Your task to perform on an android device: Show me recent news Image 0: 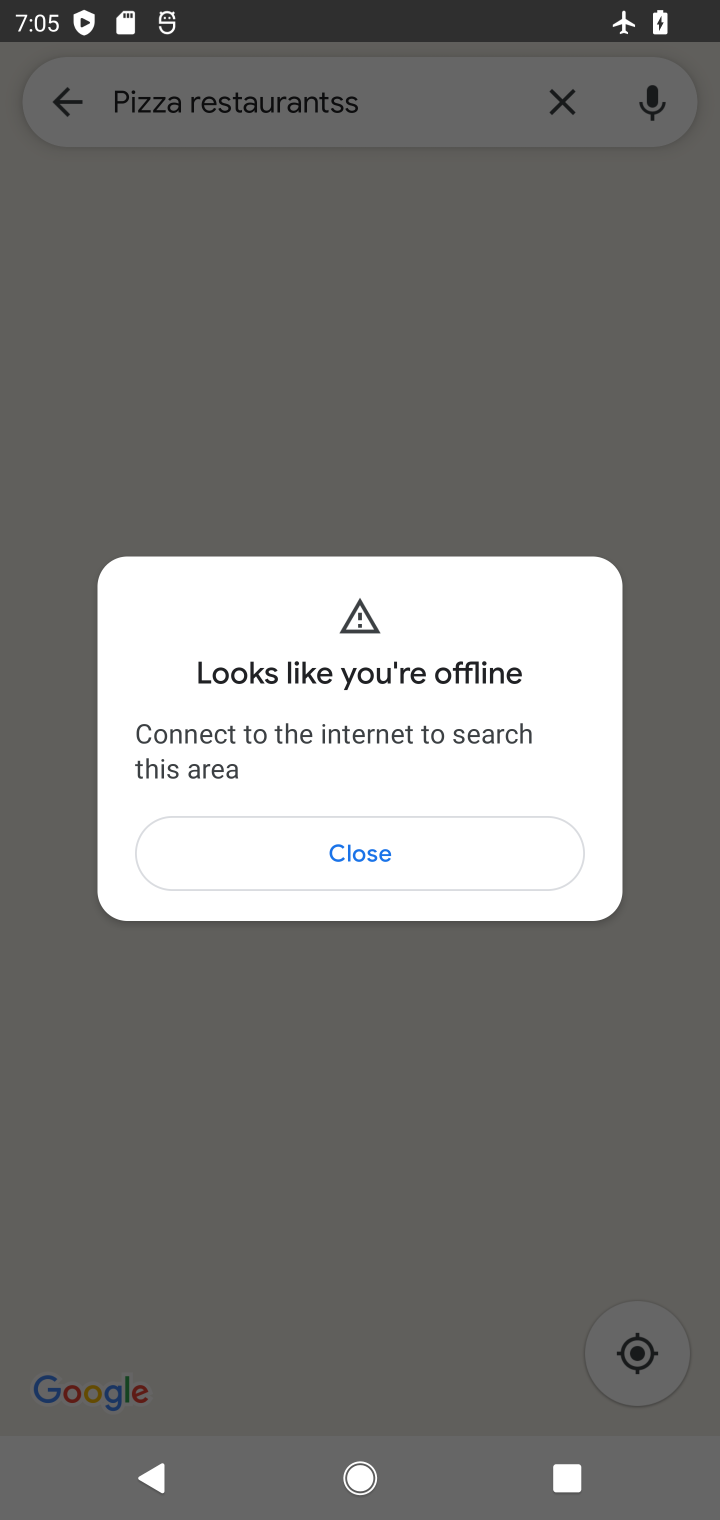
Step 0: press home button
Your task to perform on an android device: Show me recent news Image 1: 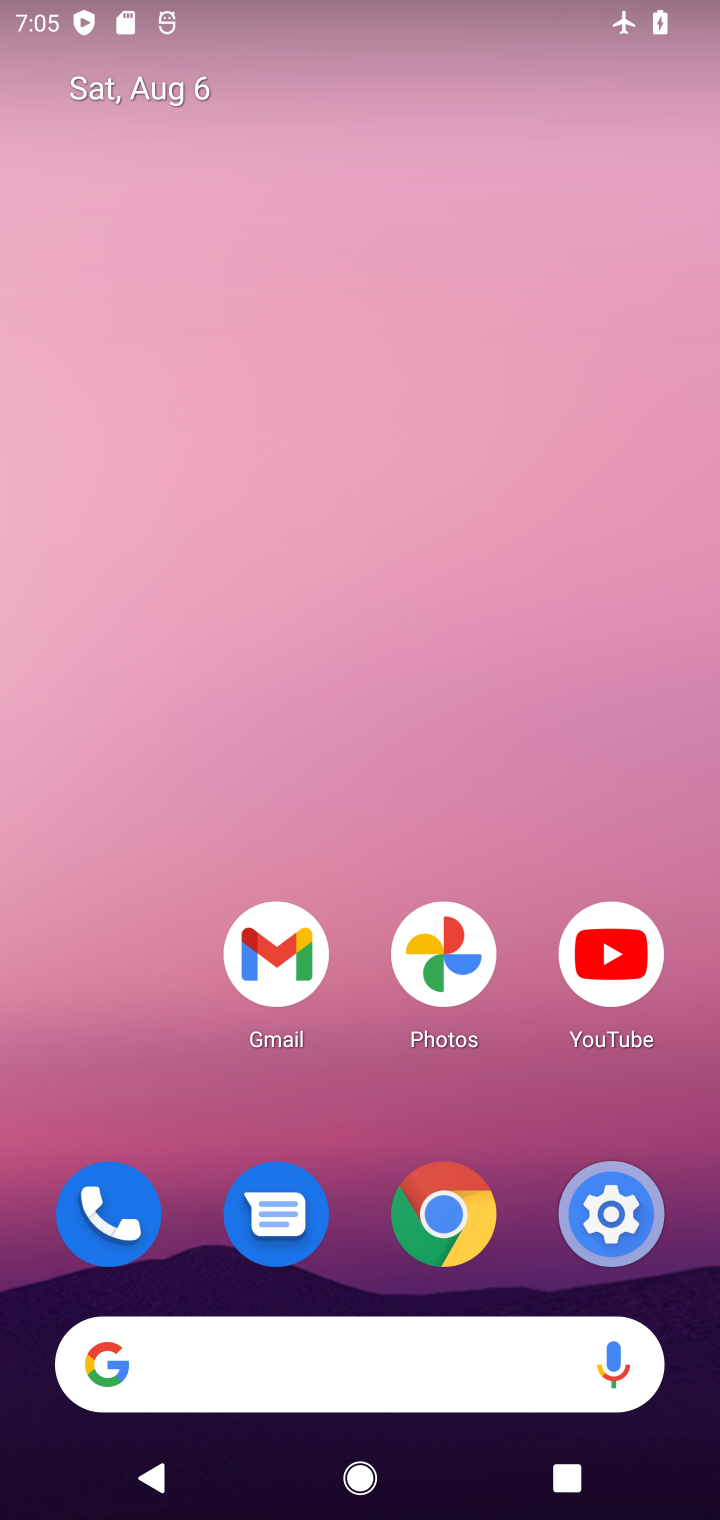
Step 1: click (267, 1376)
Your task to perform on an android device: Show me recent news Image 2: 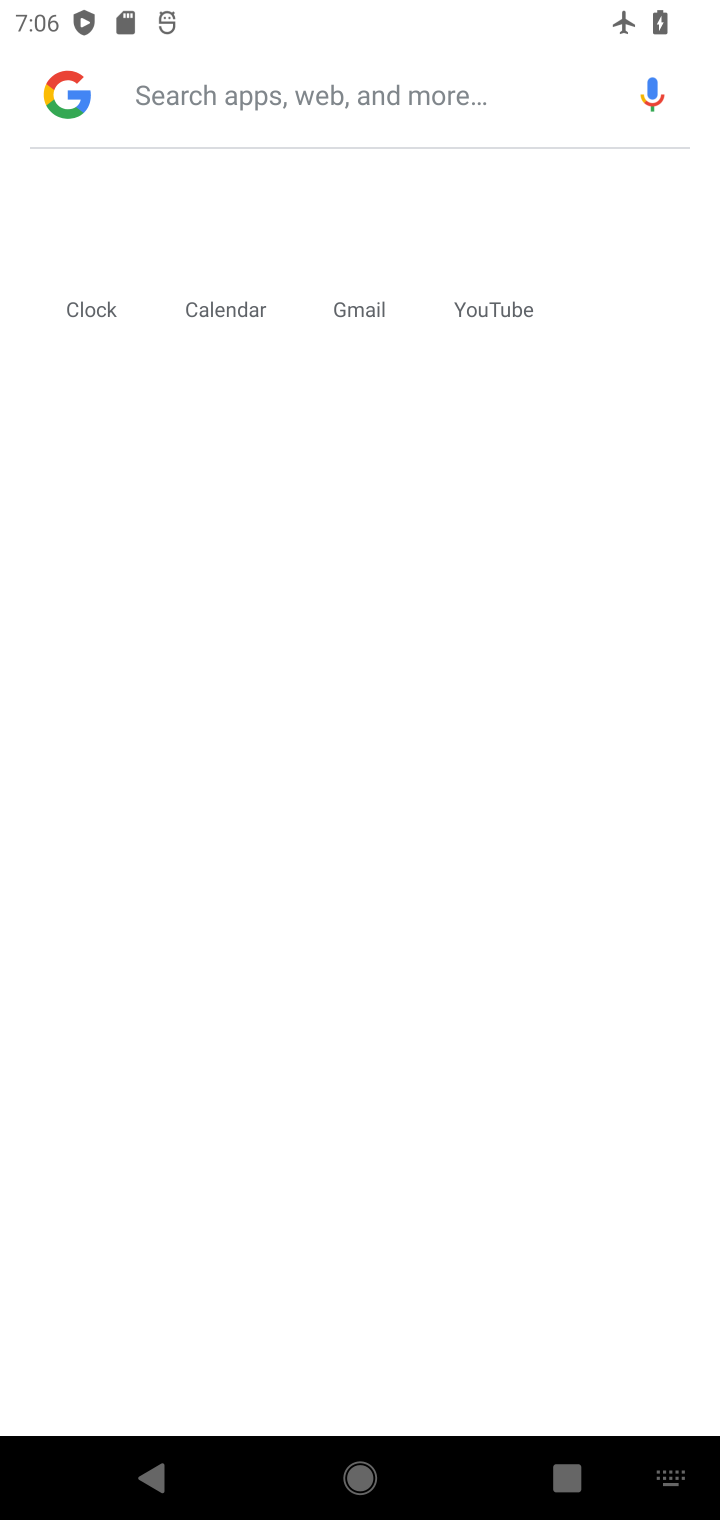
Step 2: type "recent news"
Your task to perform on an android device: Show me recent news Image 3: 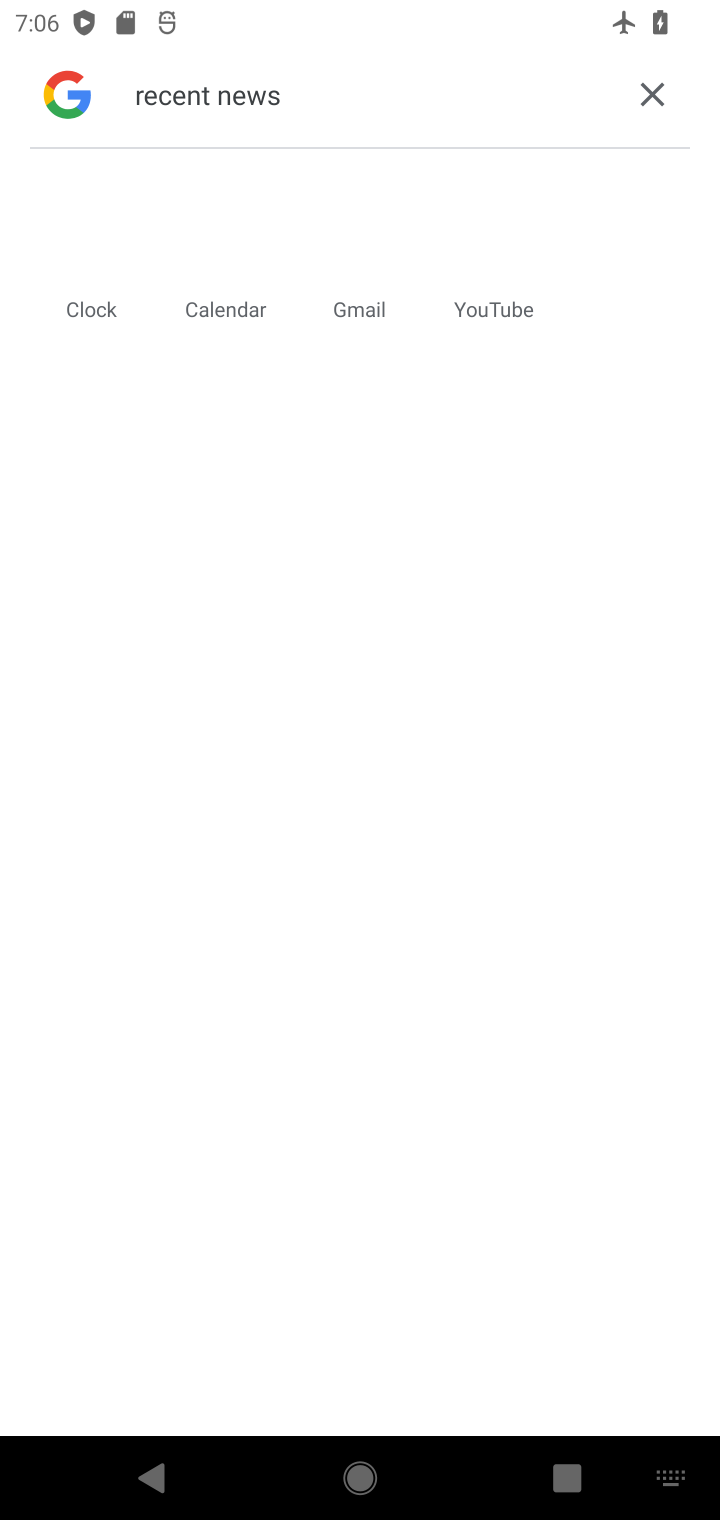
Step 3: drag from (269, 789) to (299, 521)
Your task to perform on an android device: Show me recent news Image 4: 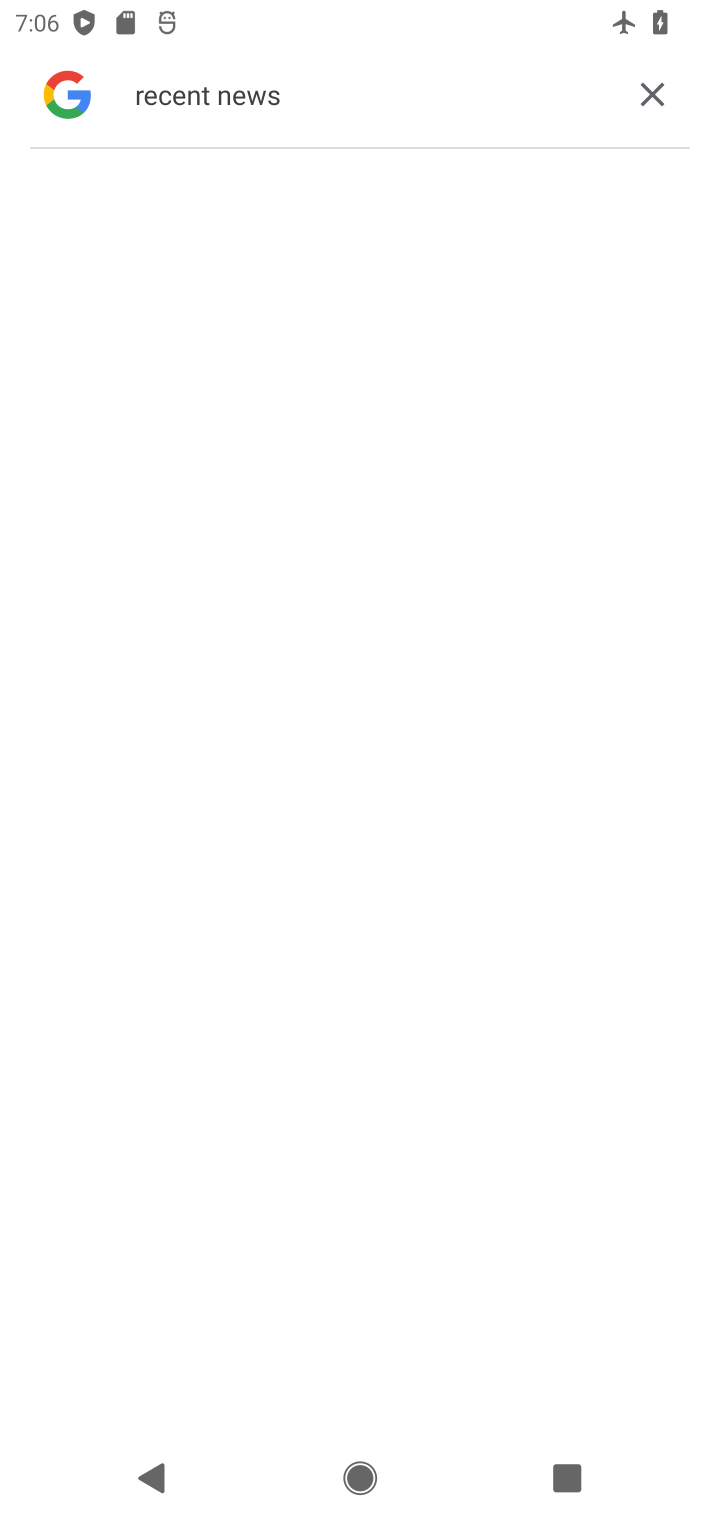
Step 4: drag from (351, 641) to (365, 979)
Your task to perform on an android device: Show me recent news Image 5: 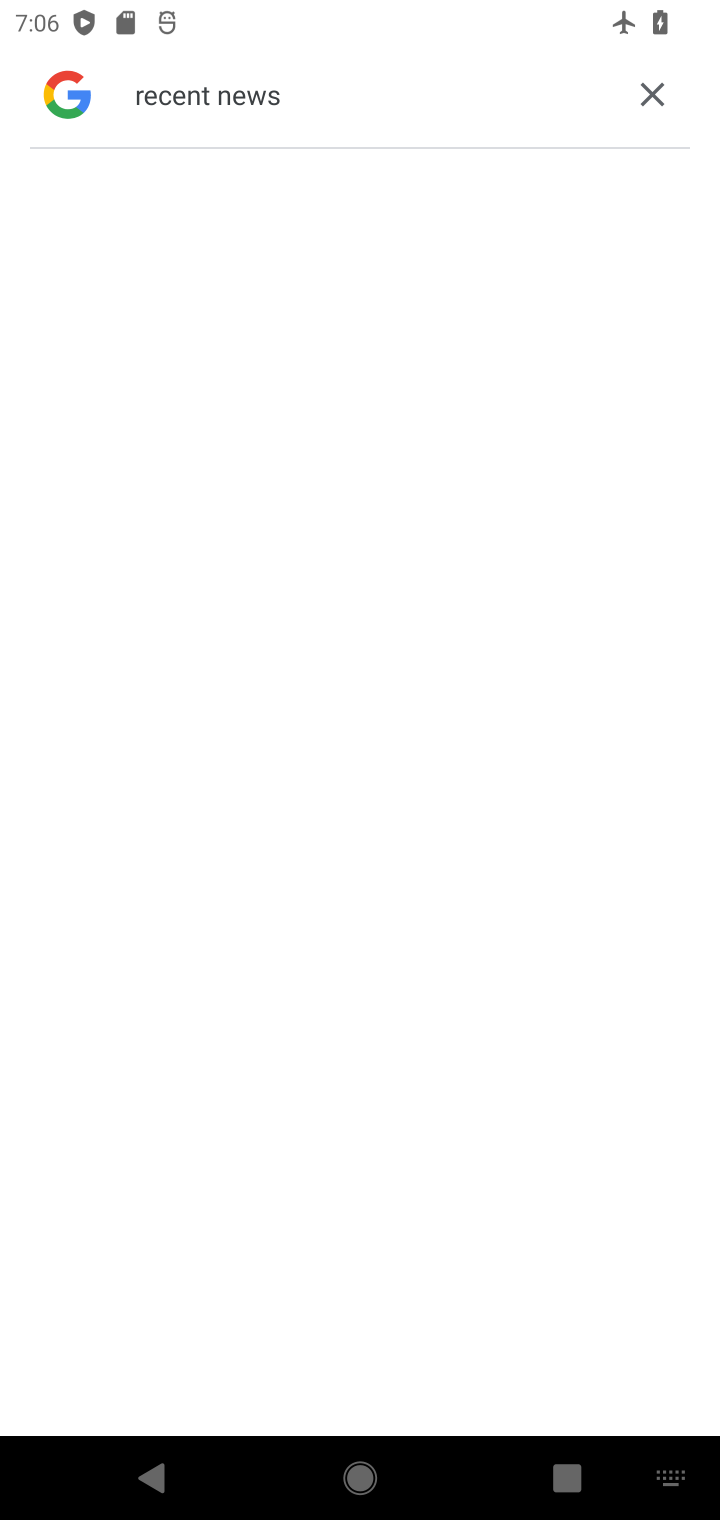
Step 5: click (293, 263)
Your task to perform on an android device: Show me recent news Image 6: 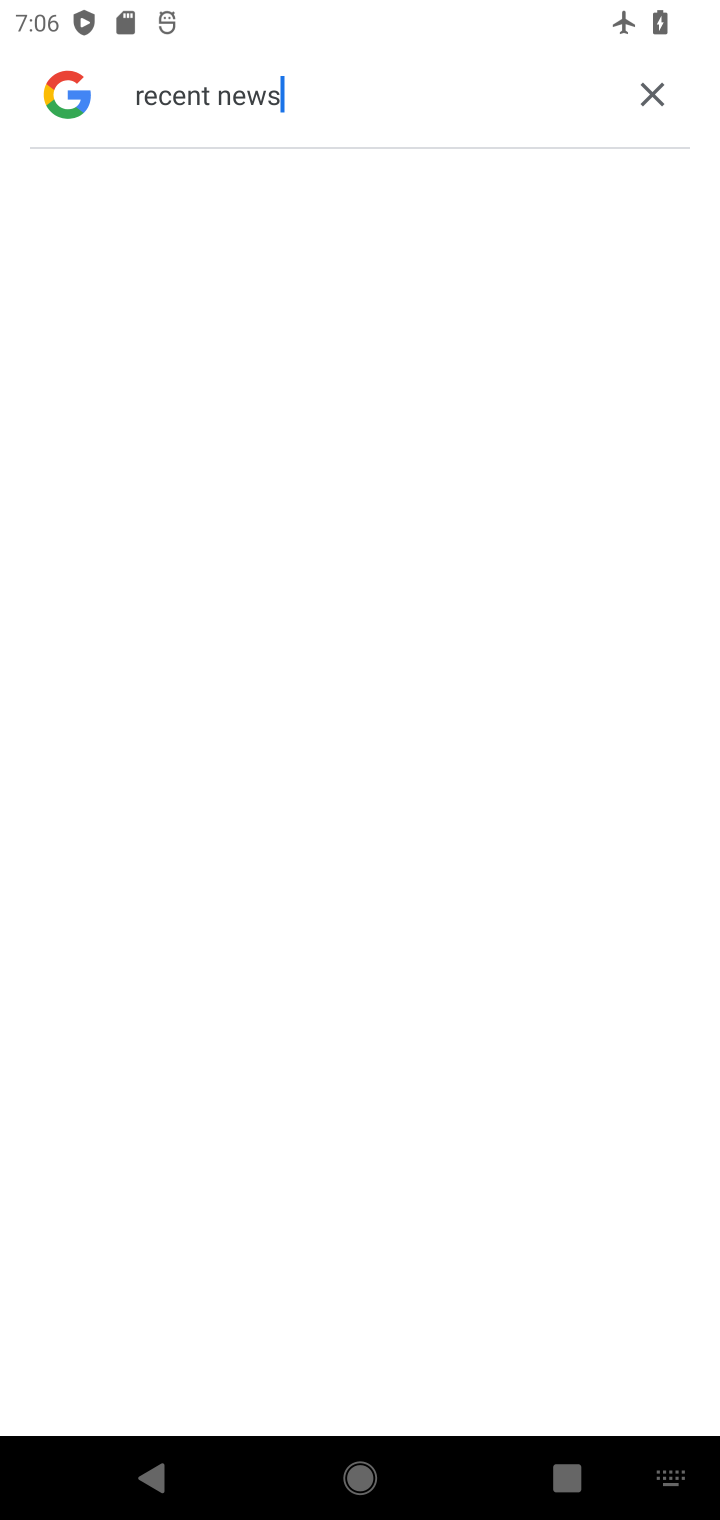
Step 6: task complete